Your task to perform on an android device: refresh tabs in the chrome app Image 0: 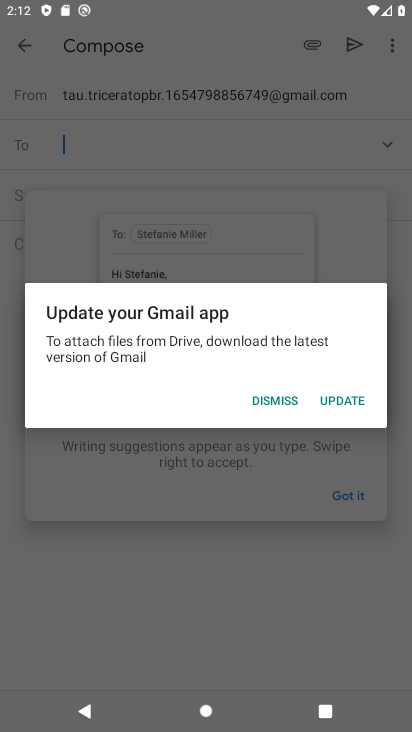
Step 0: click (270, 393)
Your task to perform on an android device: refresh tabs in the chrome app Image 1: 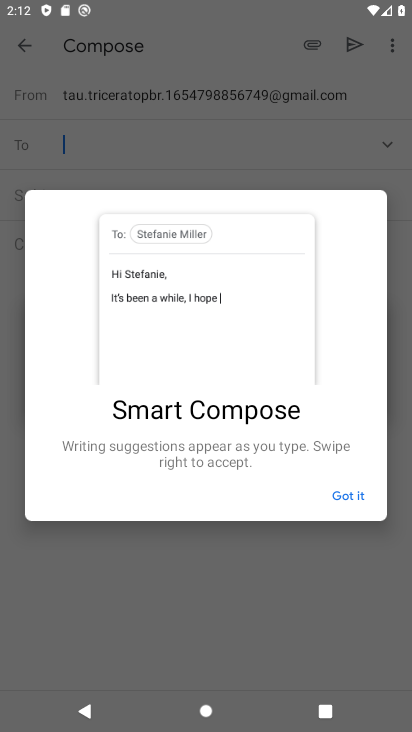
Step 1: click (353, 506)
Your task to perform on an android device: refresh tabs in the chrome app Image 2: 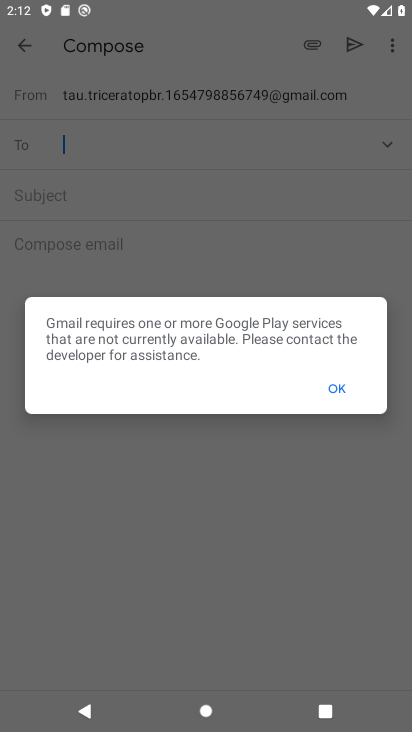
Step 2: press back button
Your task to perform on an android device: refresh tabs in the chrome app Image 3: 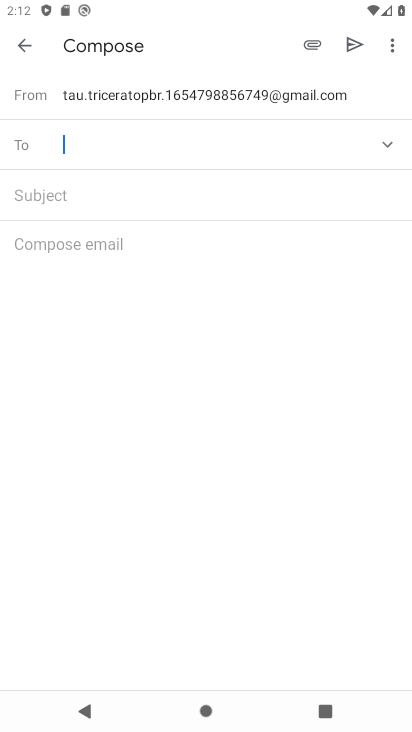
Step 3: press home button
Your task to perform on an android device: refresh tabs in the chrome app Image 4: 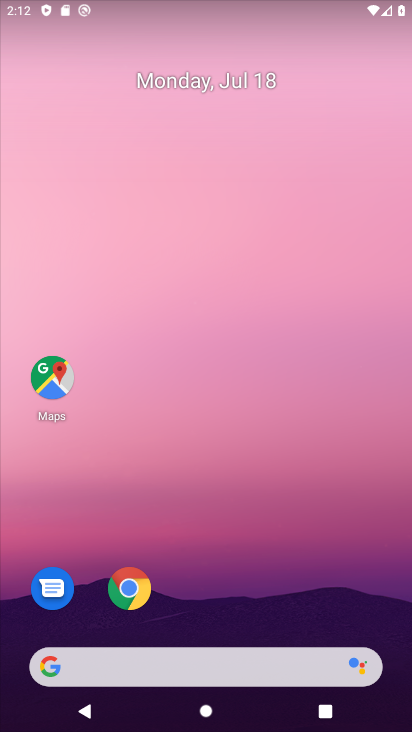
Step 4: click (135, 577)
Your task to perform on an android device: refresh tabs in the chrome app Image 5: 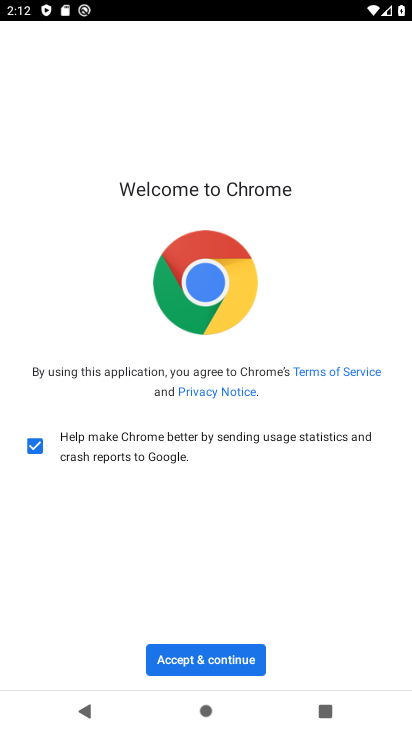
Step 5: click (190, 651)
Your task to perform on an android device: refresh tabs in the chrome app Image 6: 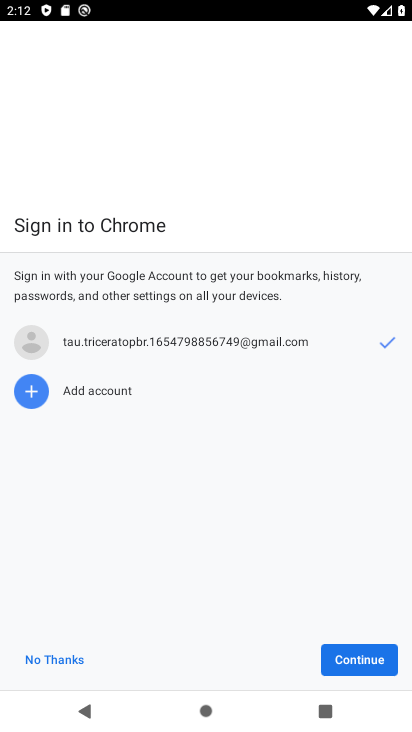
Step 6: click (368, 649)
Your task to perform on an android device: refresh tabs in the chrome app Image 7: 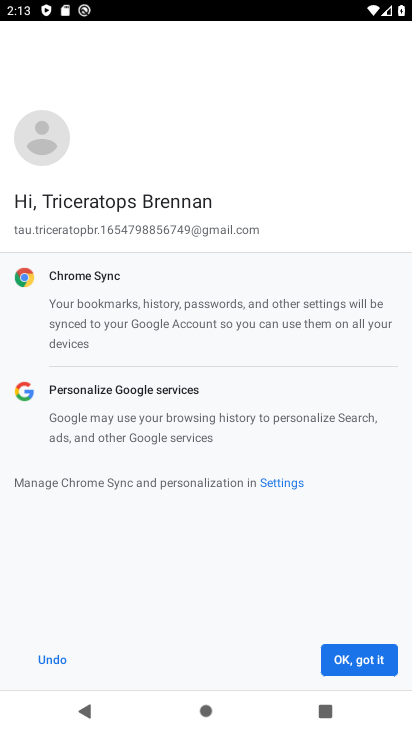
Step 7: click (352, 649)
Your task to perform on an android device: refresh tabs in the chrome app Image 8: 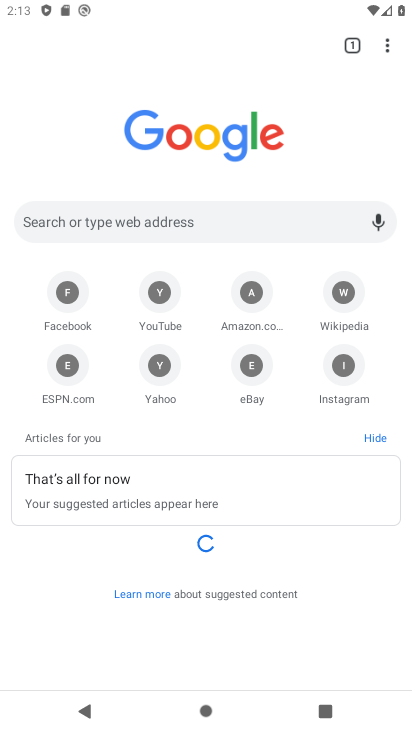
Step 8: click (385, 43)
Your task to perform on an android device: refresh tabs in the chrome app Image 9: 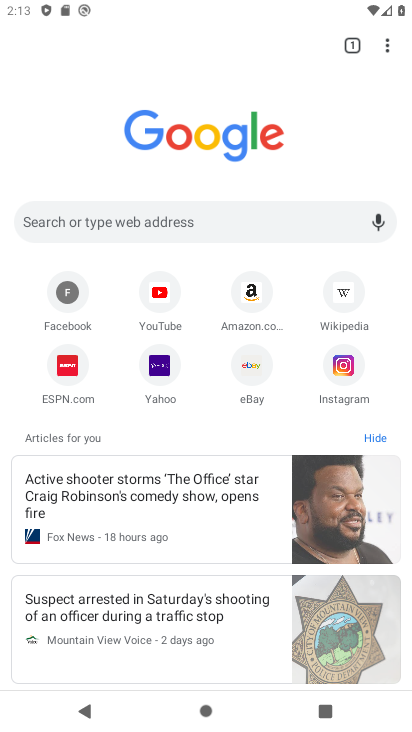
Step 9: click (385, 39)
Your task to perform on an android device: refresh tabs in the chrome app Image 10: 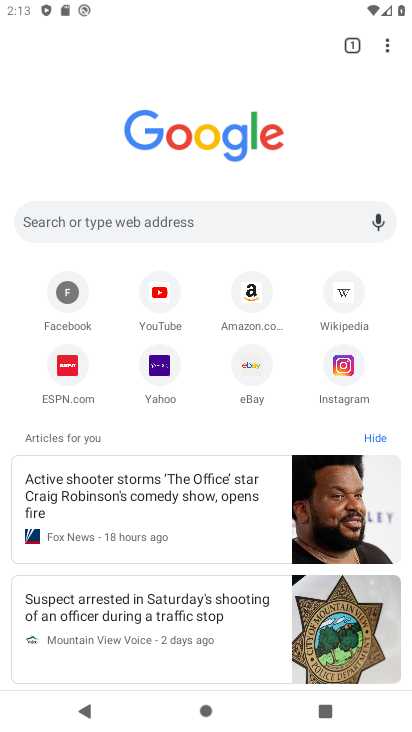
Step 10: task complete